Your task to perform on an android device: toggle data saver in the chrome app Image 0: 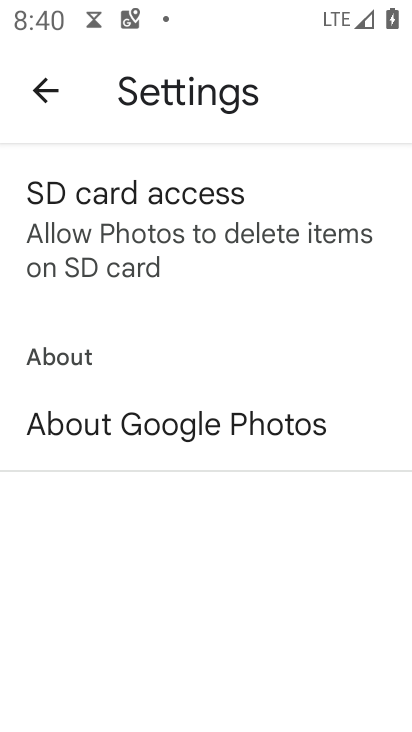
Step 0: press home button
Your task to perform on an android device: toggle data saver in the chrome app Image 1: 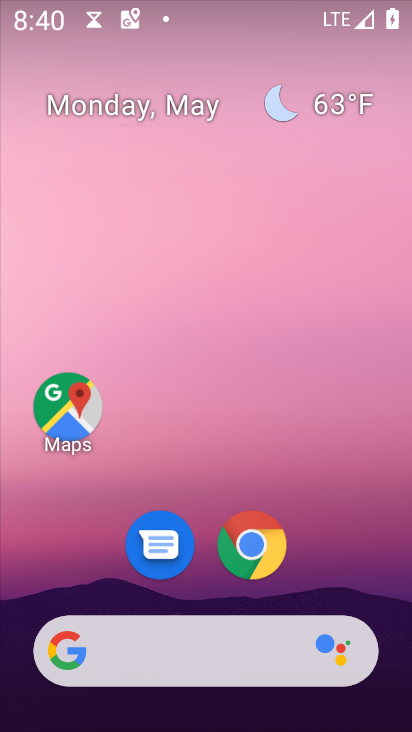
Step 1: click (259, 561)
Your task to perform on an android device: toggle data saver in the chrome app Image 2: 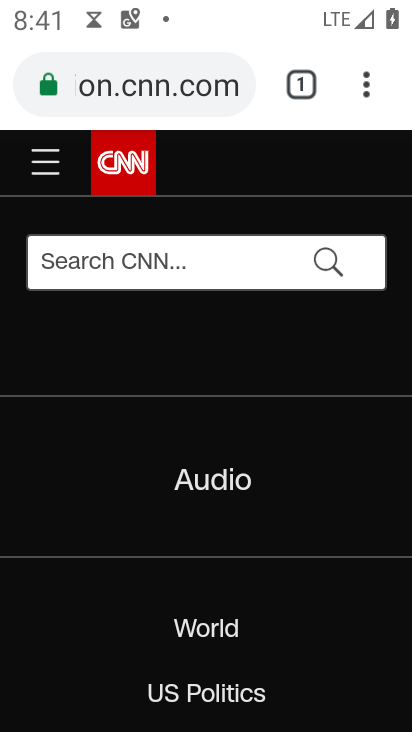
Step 2: drag from (368, 78) to (142, 587)
Your task to perform on an android device: toggle data saver in the chrome app Image 3: 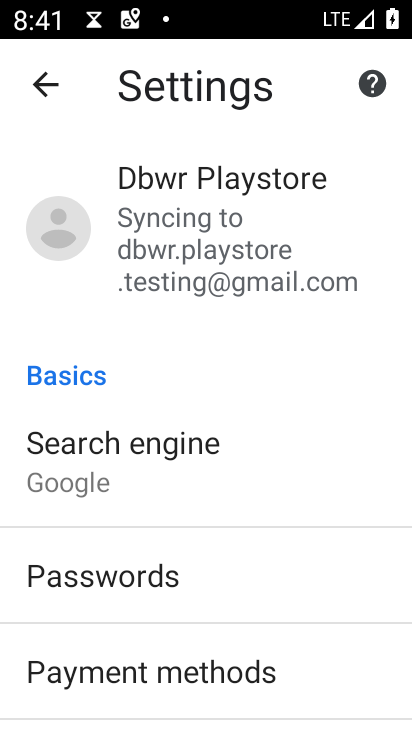
Step 3: drag from (155, 631) to (146, 270)
Your task to perform on an android device: toggle data saver in the chrome app Image 4: 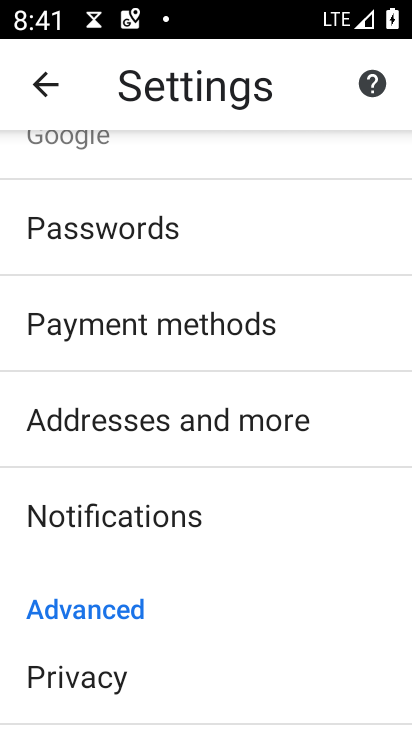
Step 4: drag from (133, 639) to (108, 138)
Your task to perform on an android device: toggle data saver in the chrome app Image 5: 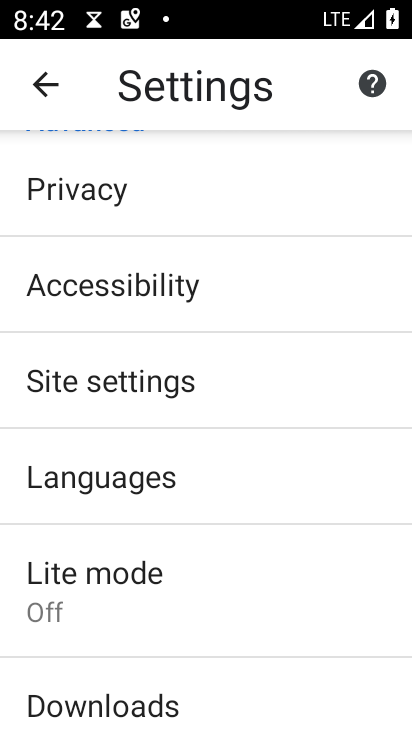
Step 5: click (130, 585)
Your task to perform on an android device: toggle data saver in the chrome app Image 6: 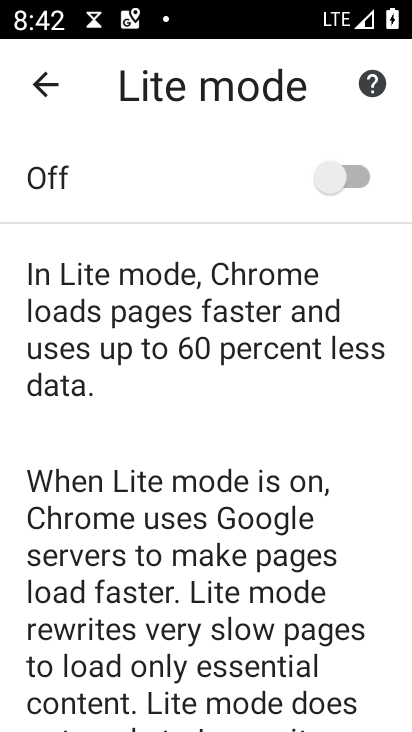
Step 6: click (331, 177)
Your task to perform on an android device: toggle data saver in the chrome app Image 7: 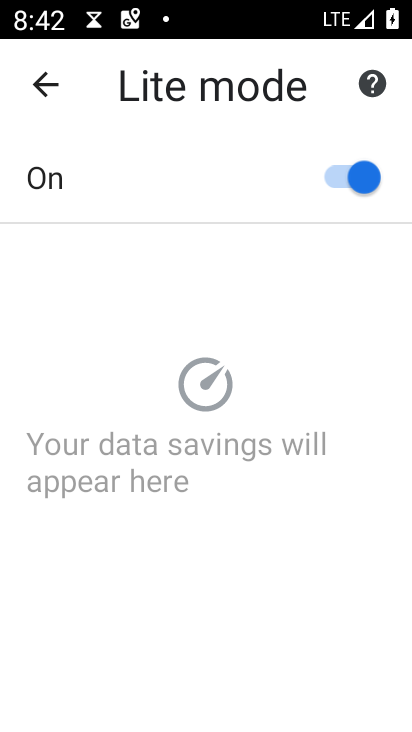
Step 7: task complete